Your task to perform on an android device: remove spam from my inbox in the gmail app Image 0: 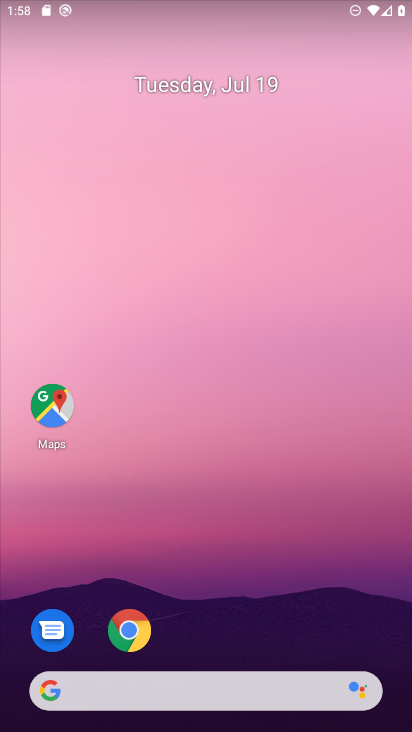
Step 0: drag from (169, 679) to (236, 265)
Your task to perform on an android device: remove spam from my inbox in the gmail app Image 1: 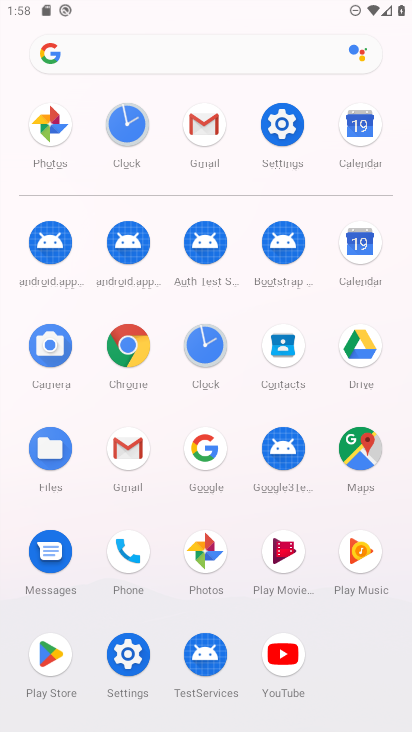
Step 1: click (196, 119)
Your task to perform on an android device: remove spam from my inbox in the gmail app Image 2: 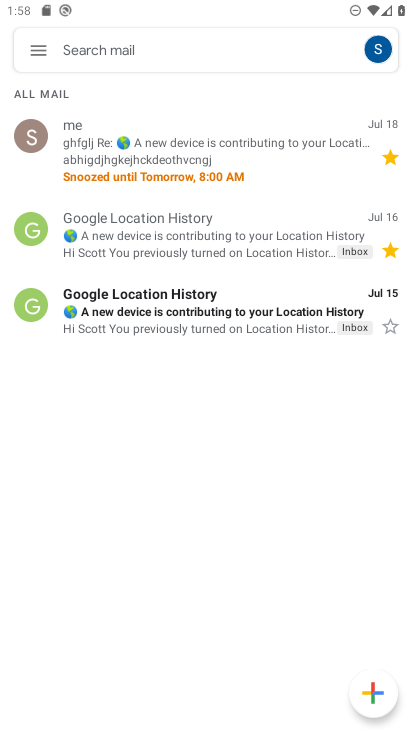
Step 2: click (33, 47)
Your task to perform on an android device: remove spam from my inbox in the gmail app Image 3: 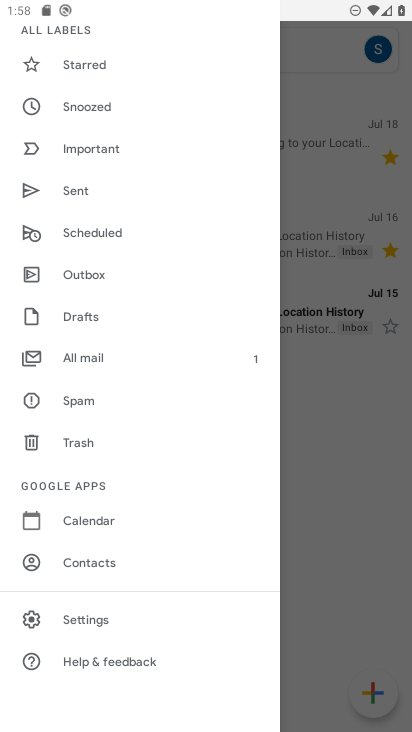
Step 3: click (79, 405)
Your task to perform on an android device: remove spam from my inbox in the gmail app Image 4: 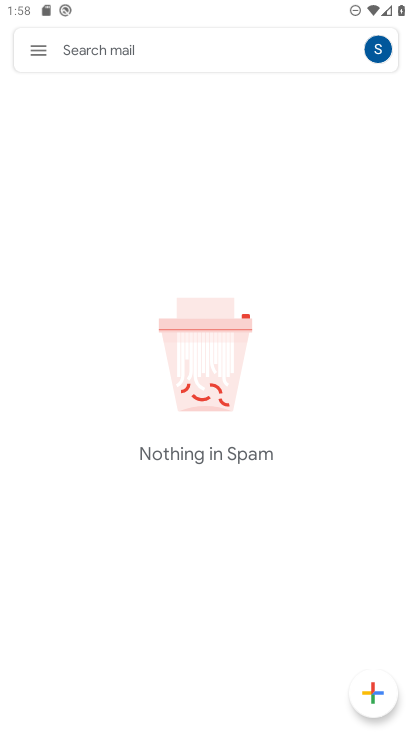
Step 4: task complete